Your task to perform on an android device: Add bose soundsport free to the cart on bestbuy, then select checkout. Image 0: 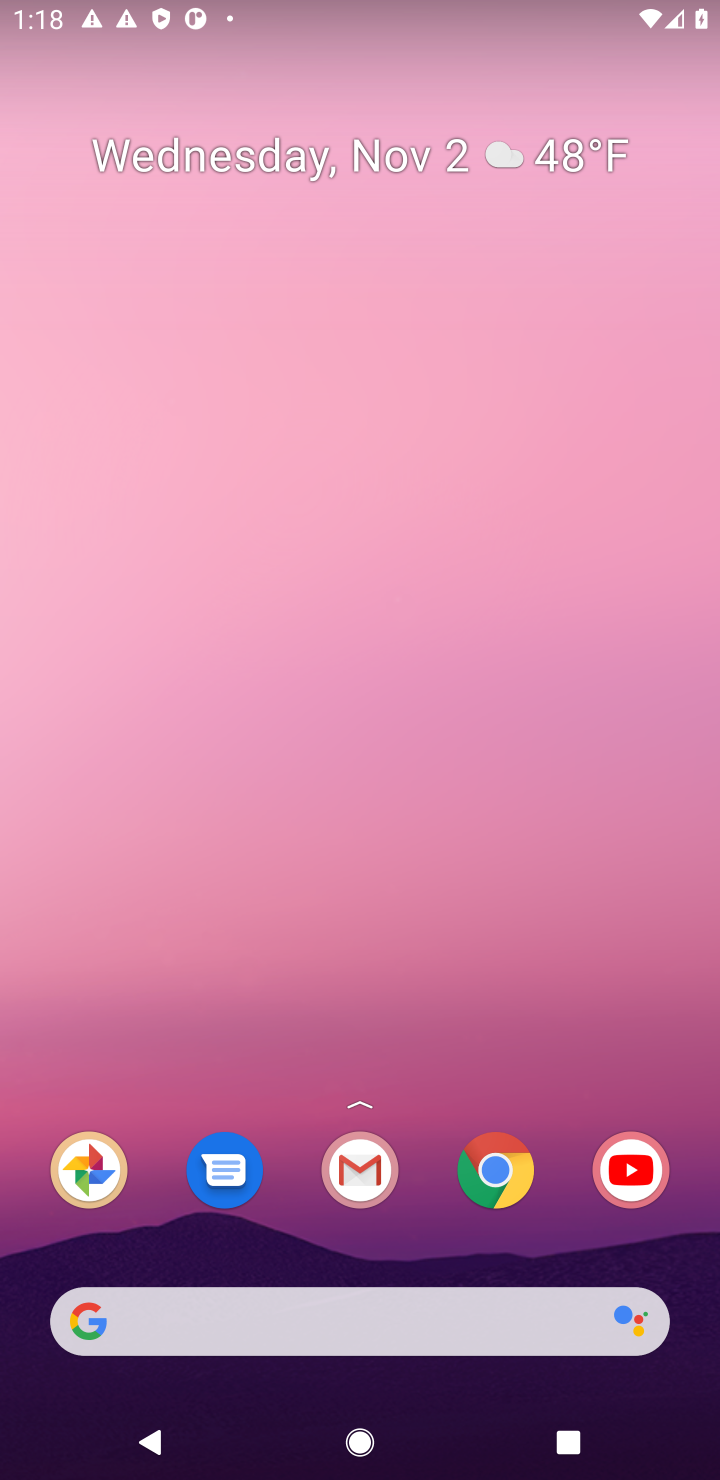
Step 0: drag from (412, 987) to (284, 245)
Your task to perform on an android device: Add bose soundsport free to the cart on bestbuy, then select checkout. Image 1: 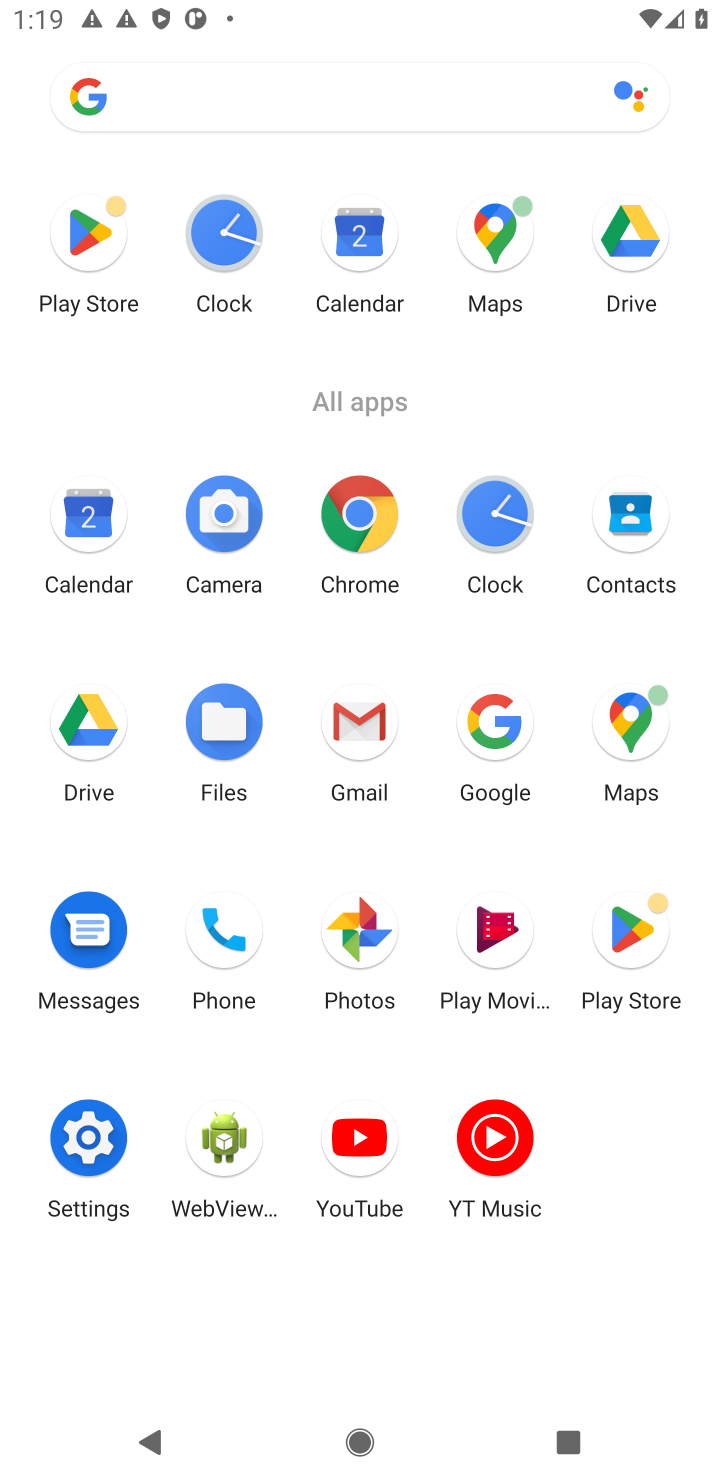
Step 1: drag from (339, 906) to (365, 381)
Your task to perform on an android device: Add bose soundsport free to the cart on bestbuy, then select checkout. Image 2: 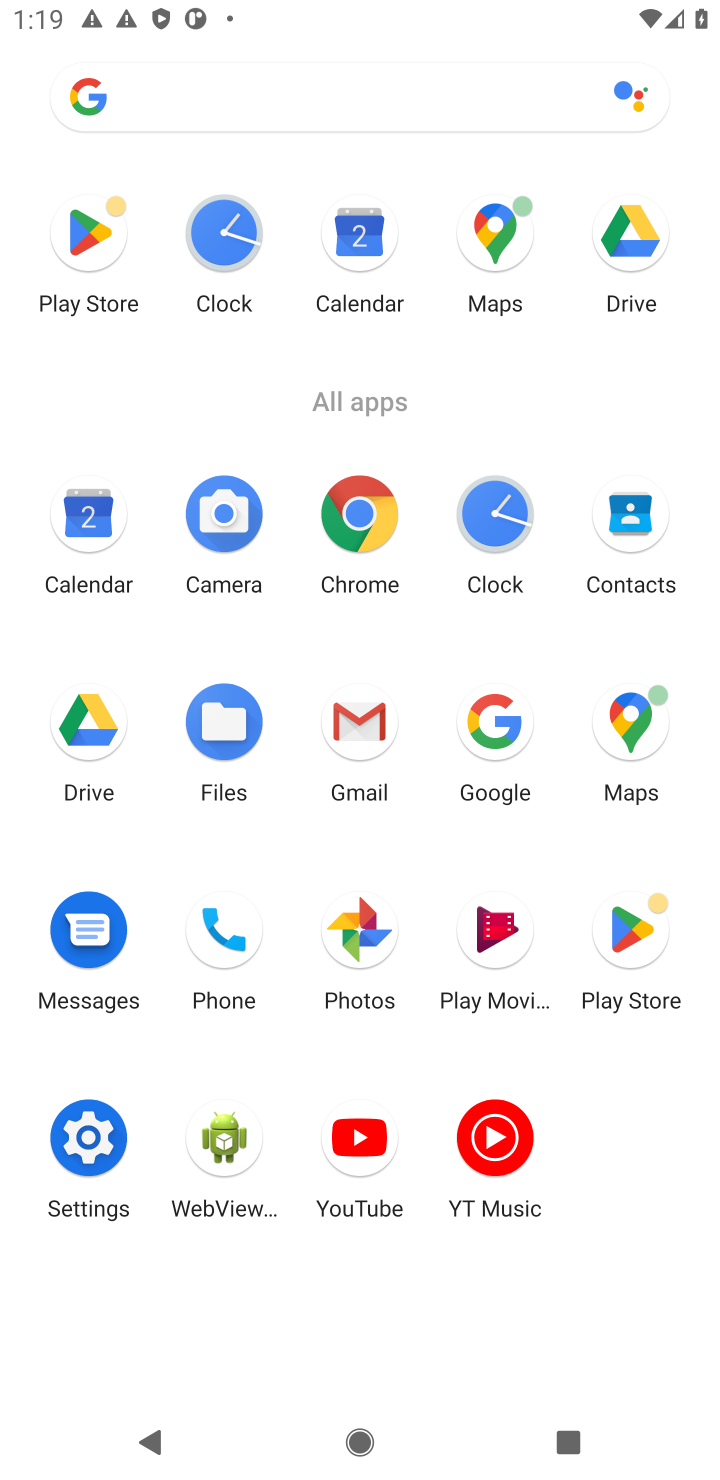
Step 2: click (490, 742)
Your task to perform on an android device: Add bose soundsport free to the cart on bestbuy, then select checkout. Image 3: 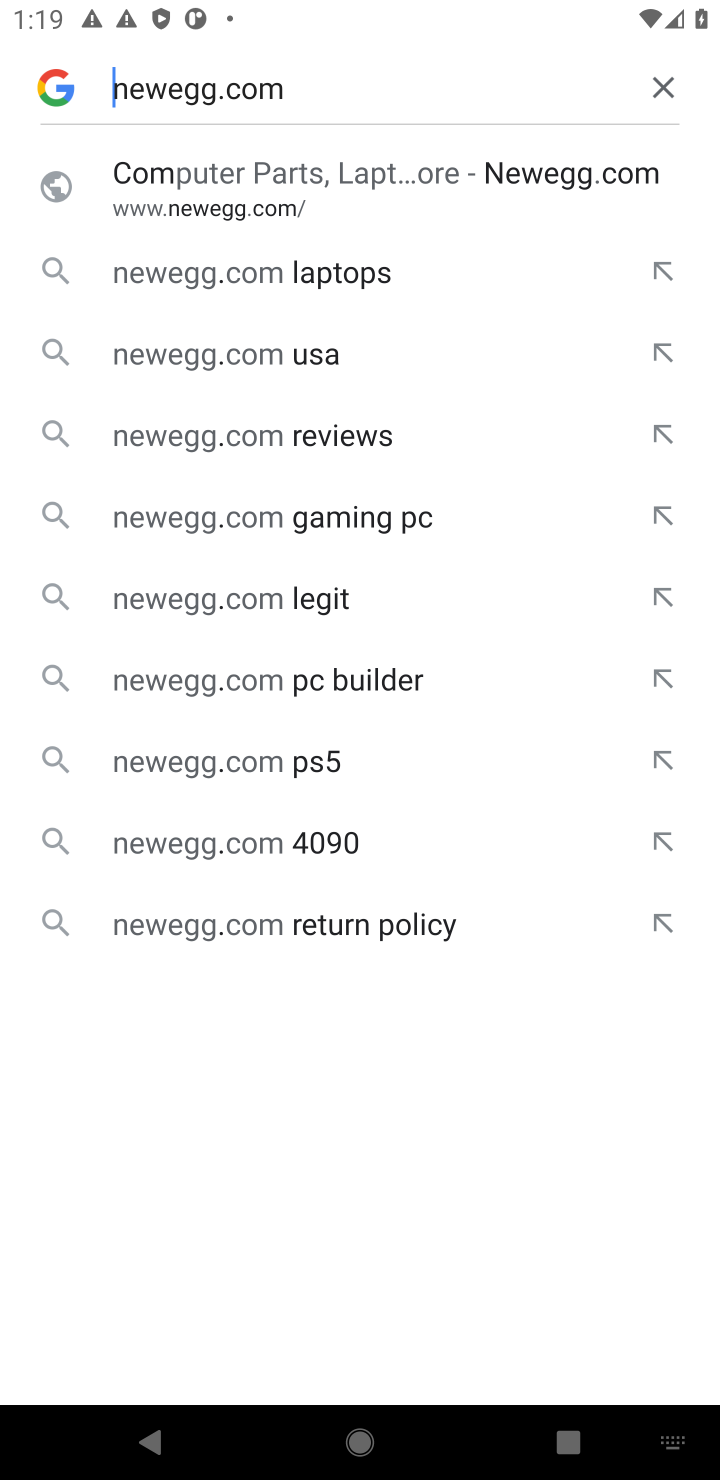
Step 3: click (669, 81)
Your task to perform on an android device: Add bose soundsport free to the cart on bestbuy, then select checkout. Image 4: 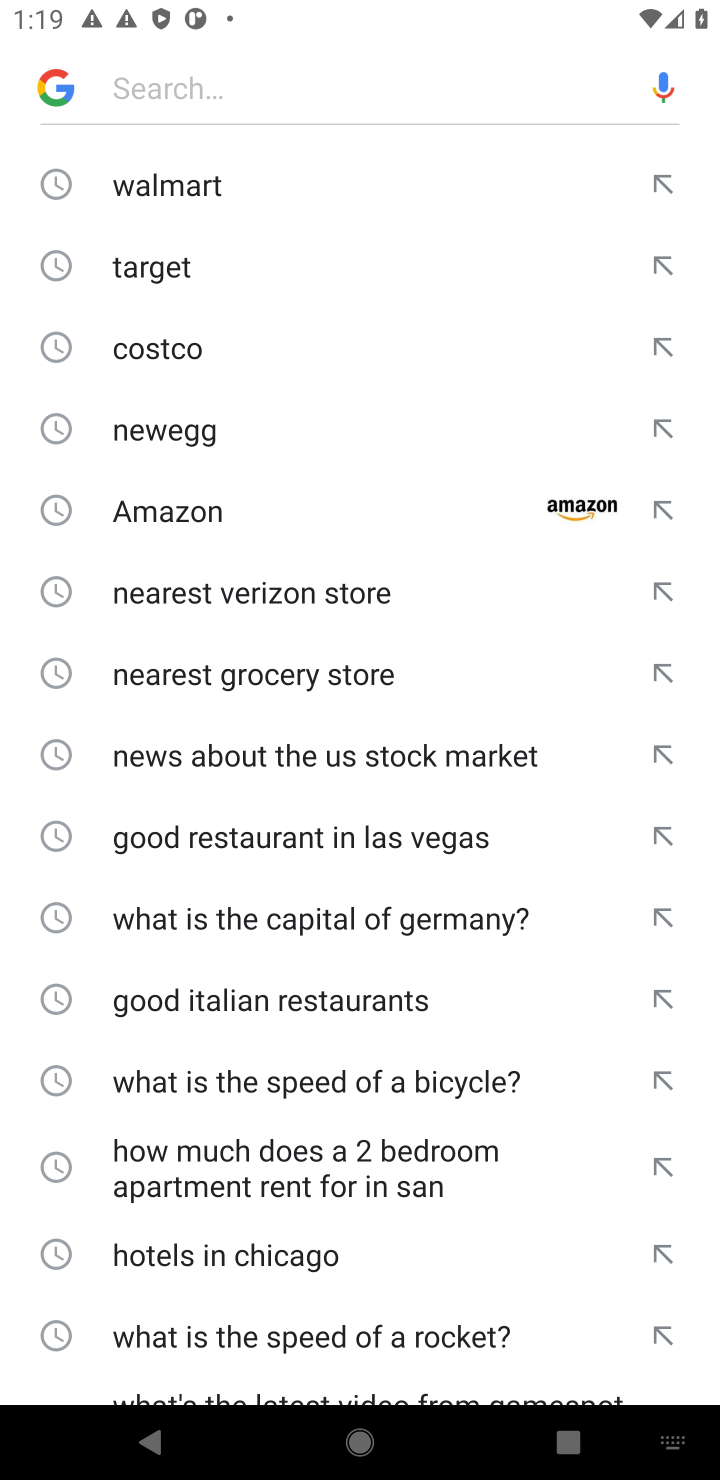
Step 4: type "bestbuy"
Your task to perform on an android device: Add bose soundsport free to the cart on bestbuy, then select checkout. Image 5: 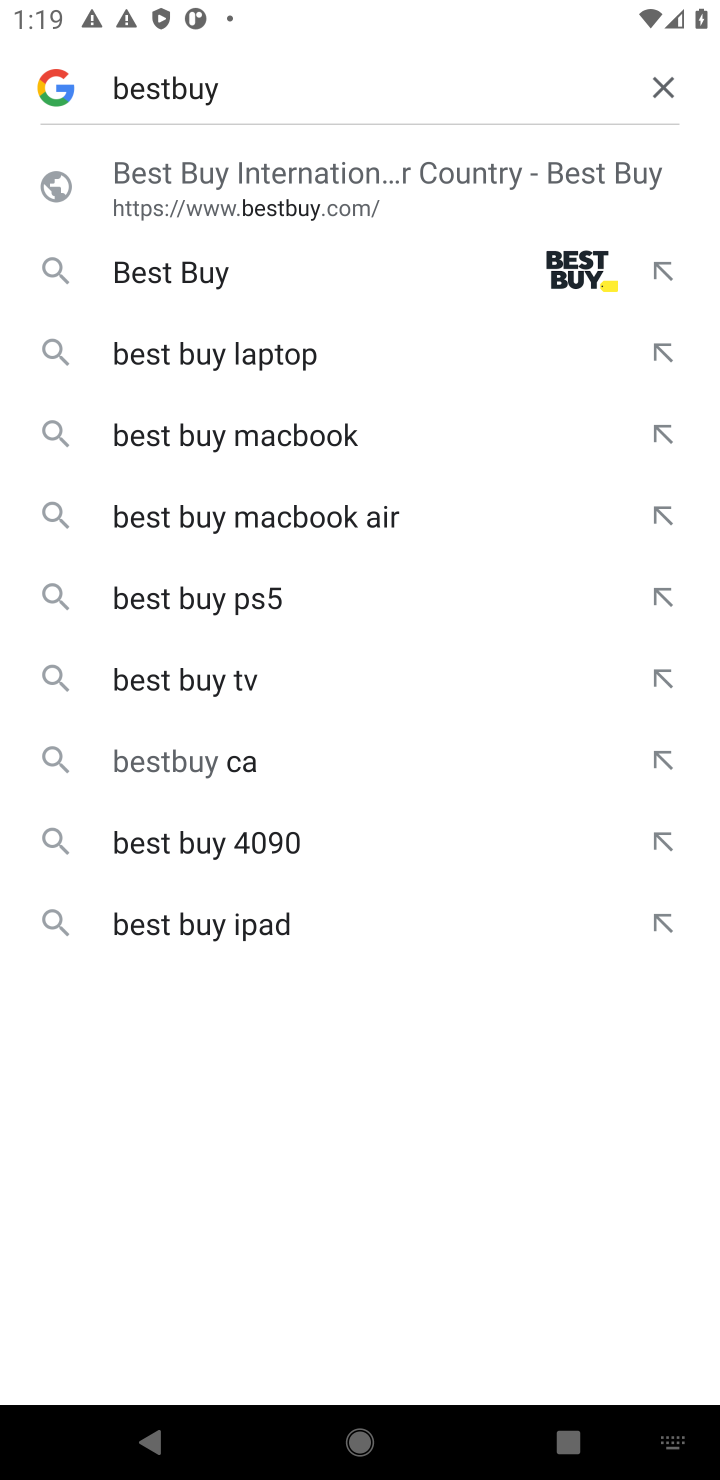
Step 5: click (304, 221)
Your task to perform on an android device: Add bose soundsport free to the cart on bestbuy, then select checkout. Image 6: 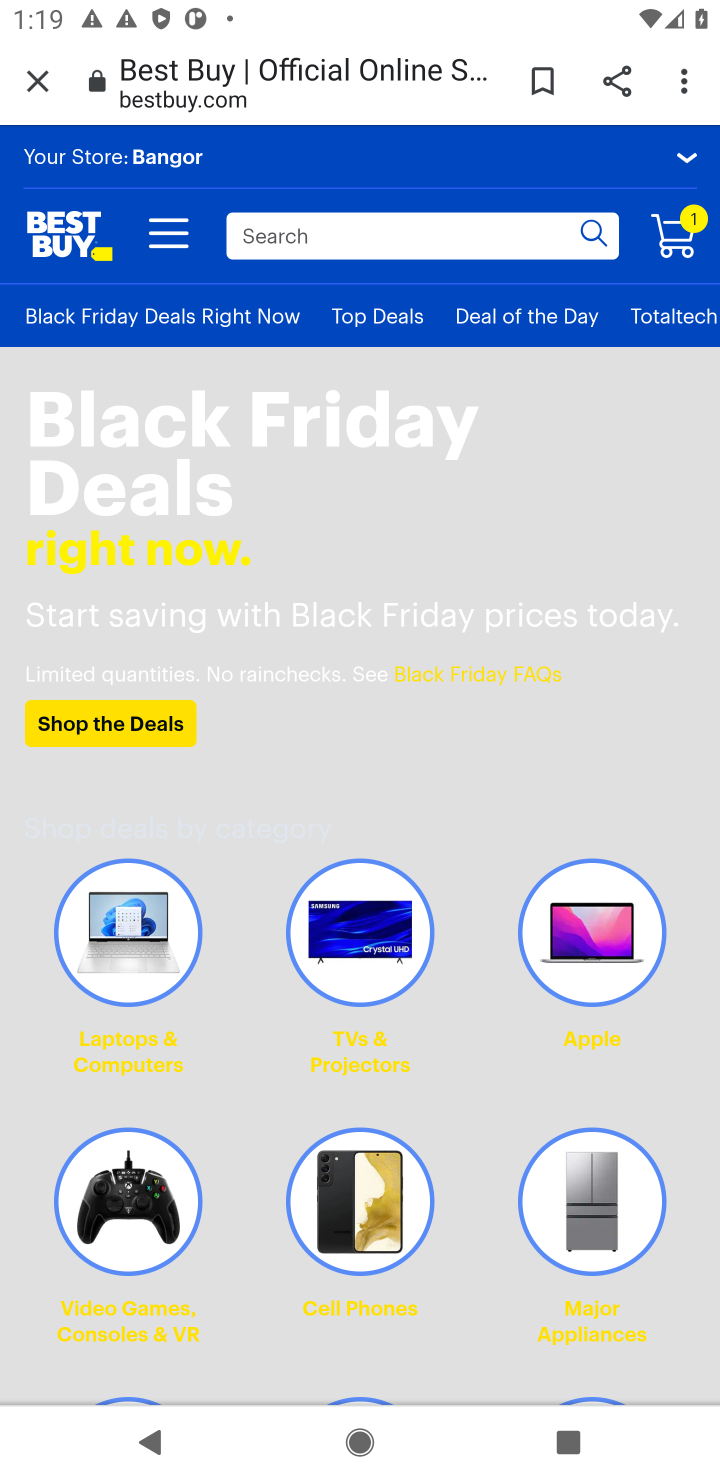
Step 6: click (353, 239)
Your task to perform on an android device: Add bose soundsport free to the cart on bestbuy, then select checkout. Image 7: 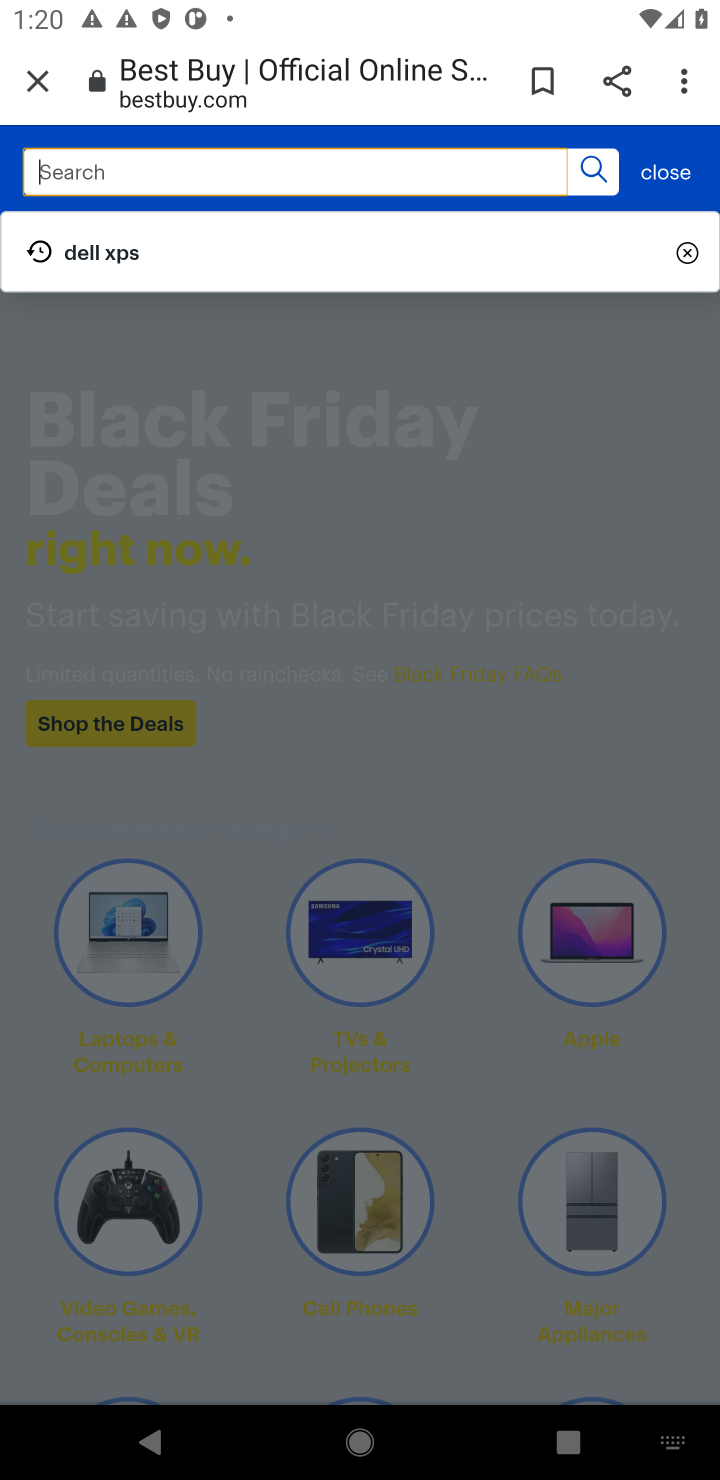
Step 7: type "bose soundsport"
Your task to perform on an android device: Add bose soundsport free to the cart on bestbuy, then select checkout. Image 8: 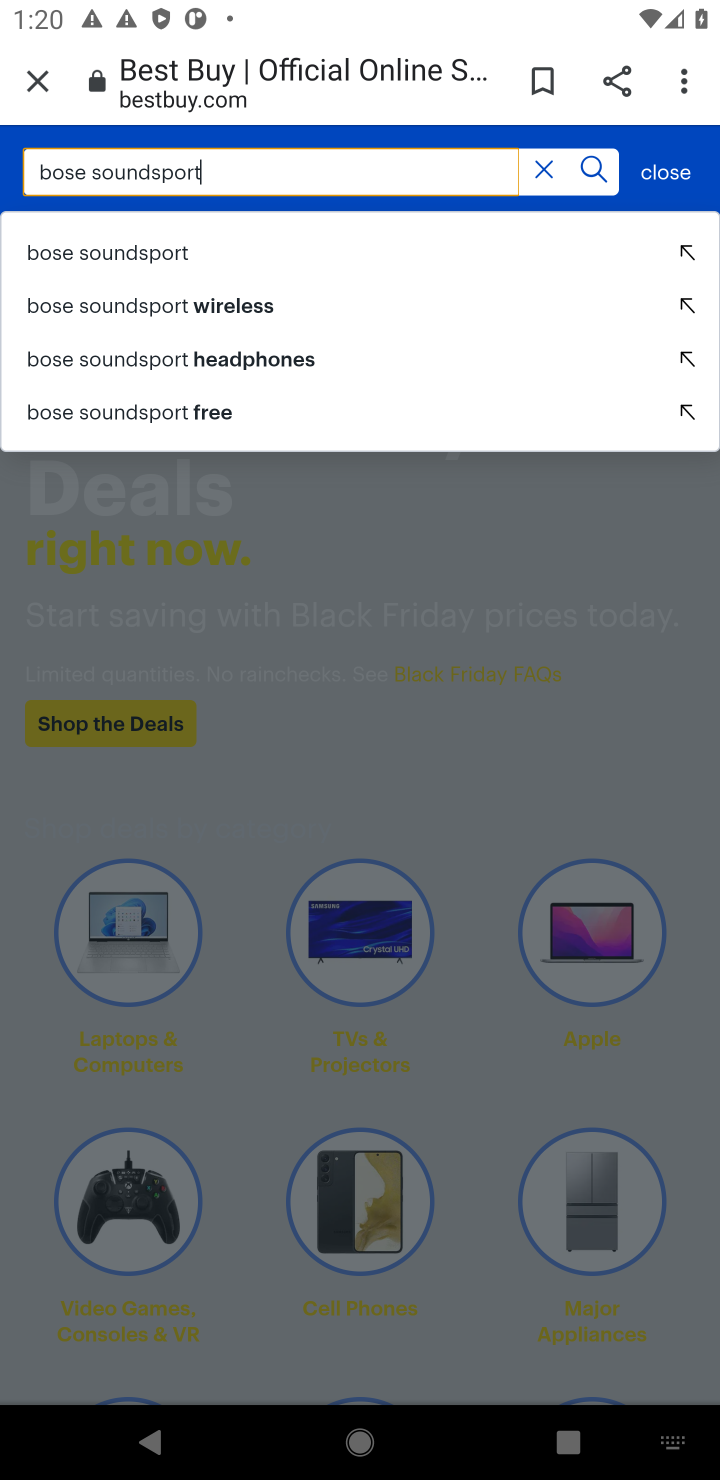
Step 8: click (212, 236)
Your task to perform on an android device: Add bose soundsport free to the cart on bestbuy, then select checkout. Image 9: 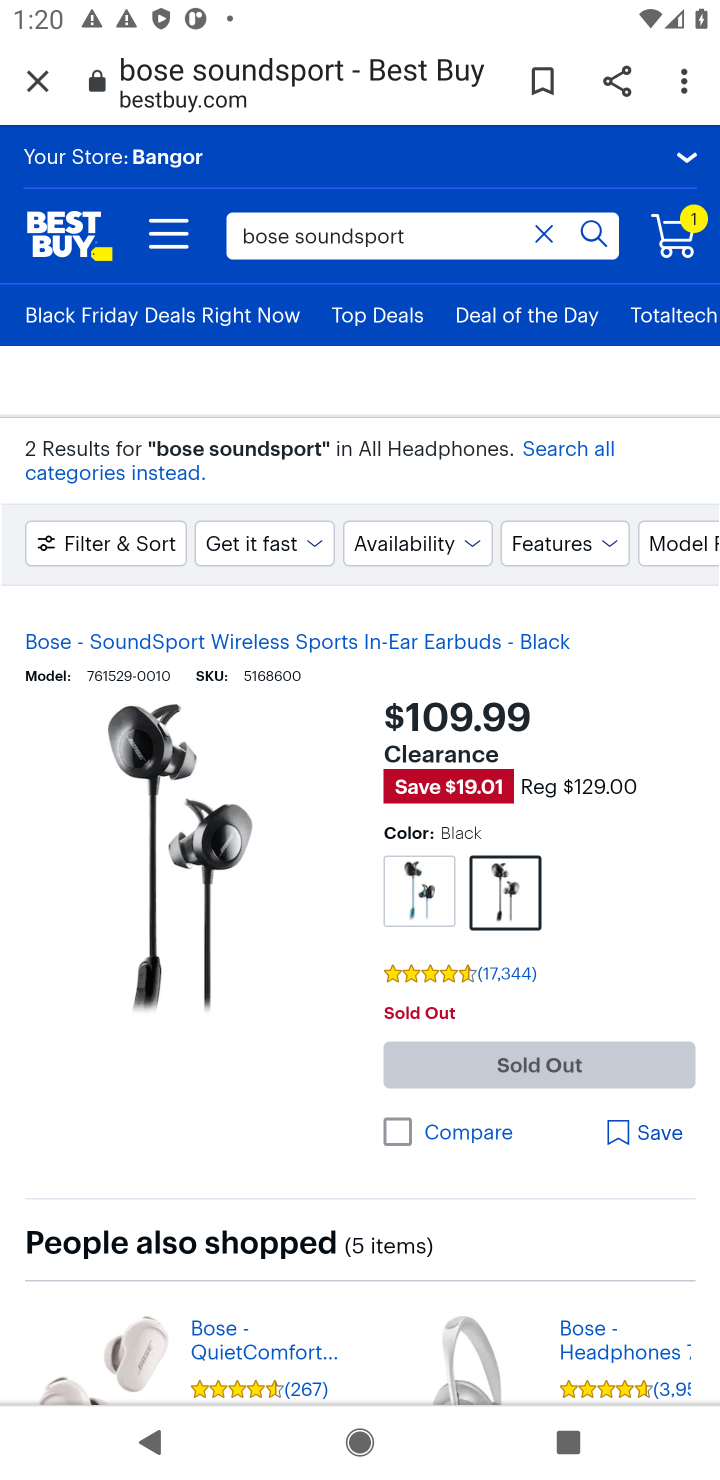
Step 9: drag from (295, 1166) to (325, 903)
Your task to perform on an android device: Add bose soundsport free to the cart on bestbuy, then select checkout. Image 10: 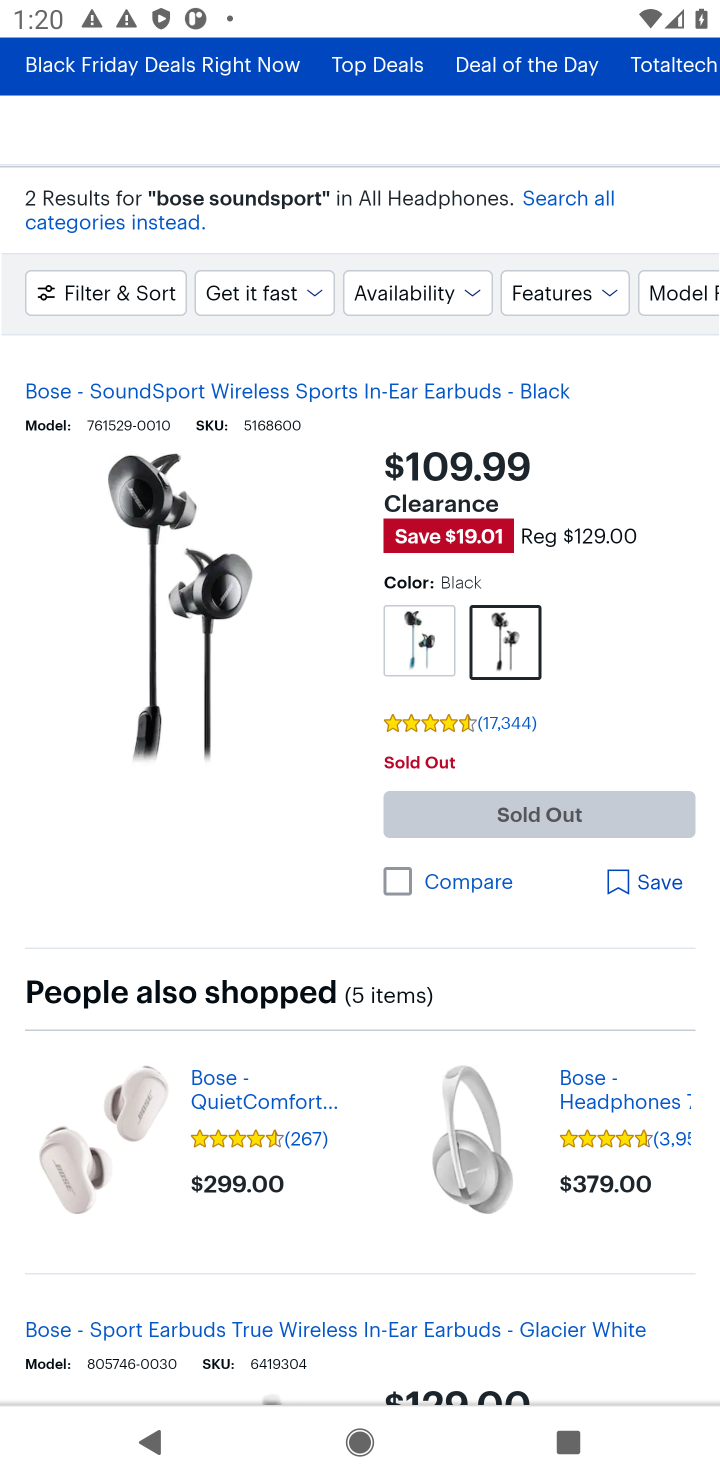
Step 10: drag from (358, 1114) to (376, 520)
Your task to perform on an android device: Add bose soundsport free to the cart on bestbuy, then select checkout. Image 11: 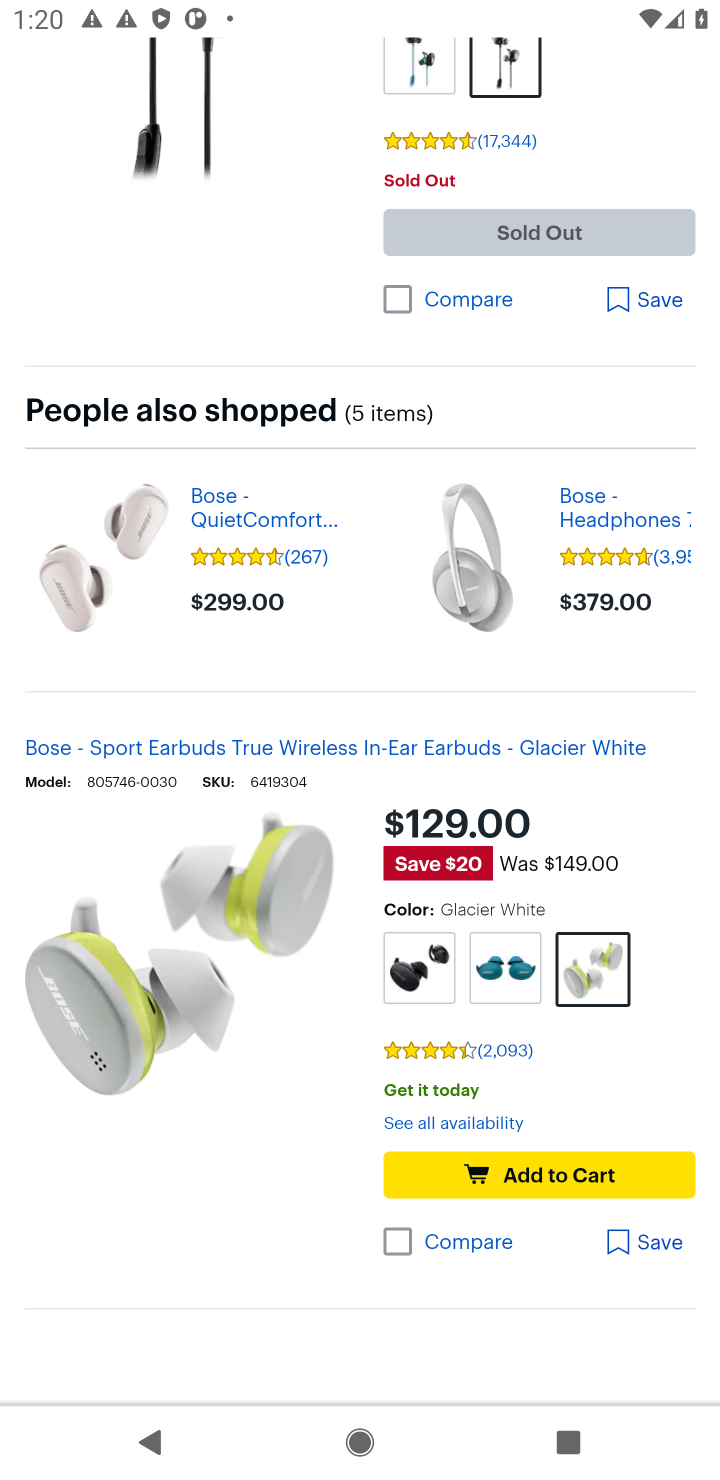
Step 11: drag from (394, 924) to (400, 701)
Your task to perform on an android device: Add bose soundsport free to the cart on bestbuy, then select checkout. Image 12: 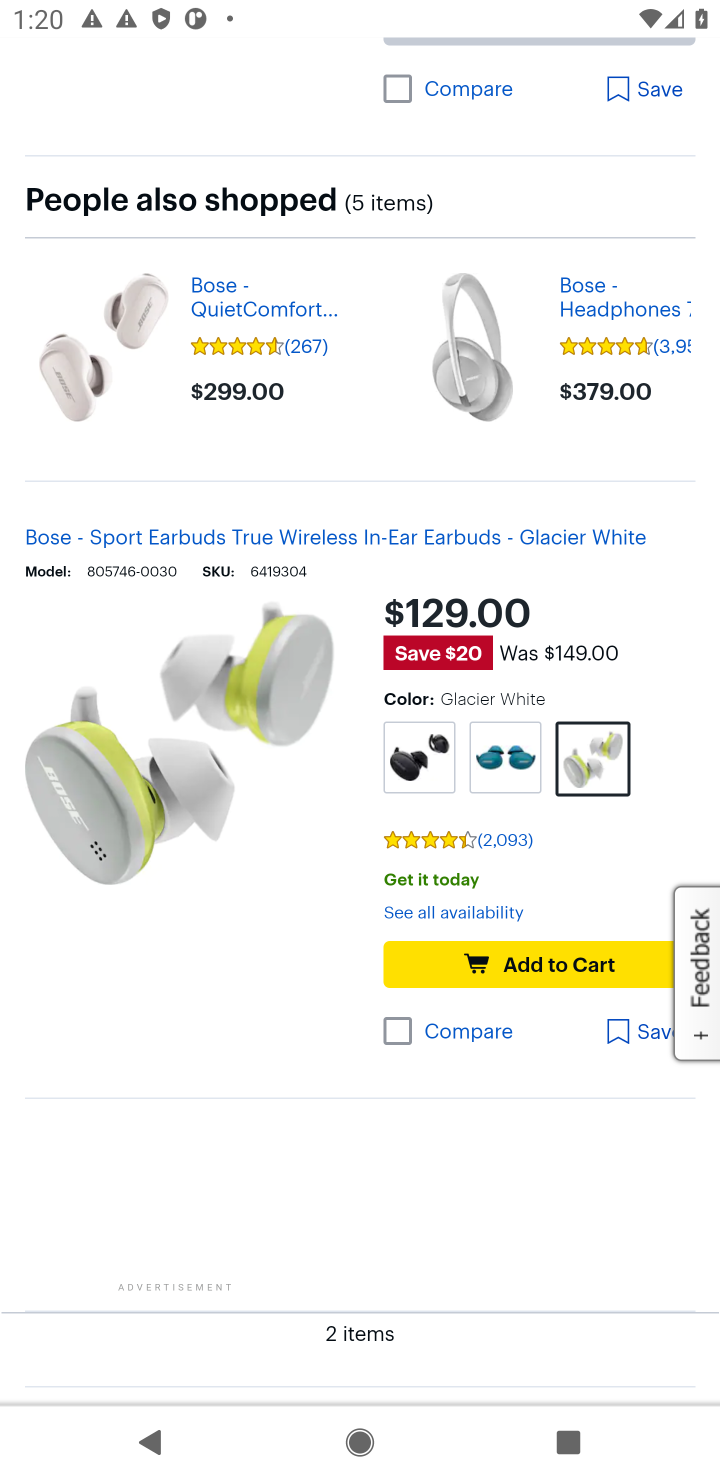
Step 12: click (507, 956)
Your task to perform on an android device: Add bose soundsport free to the cart on bestbuy, then select checkout. Image 13: 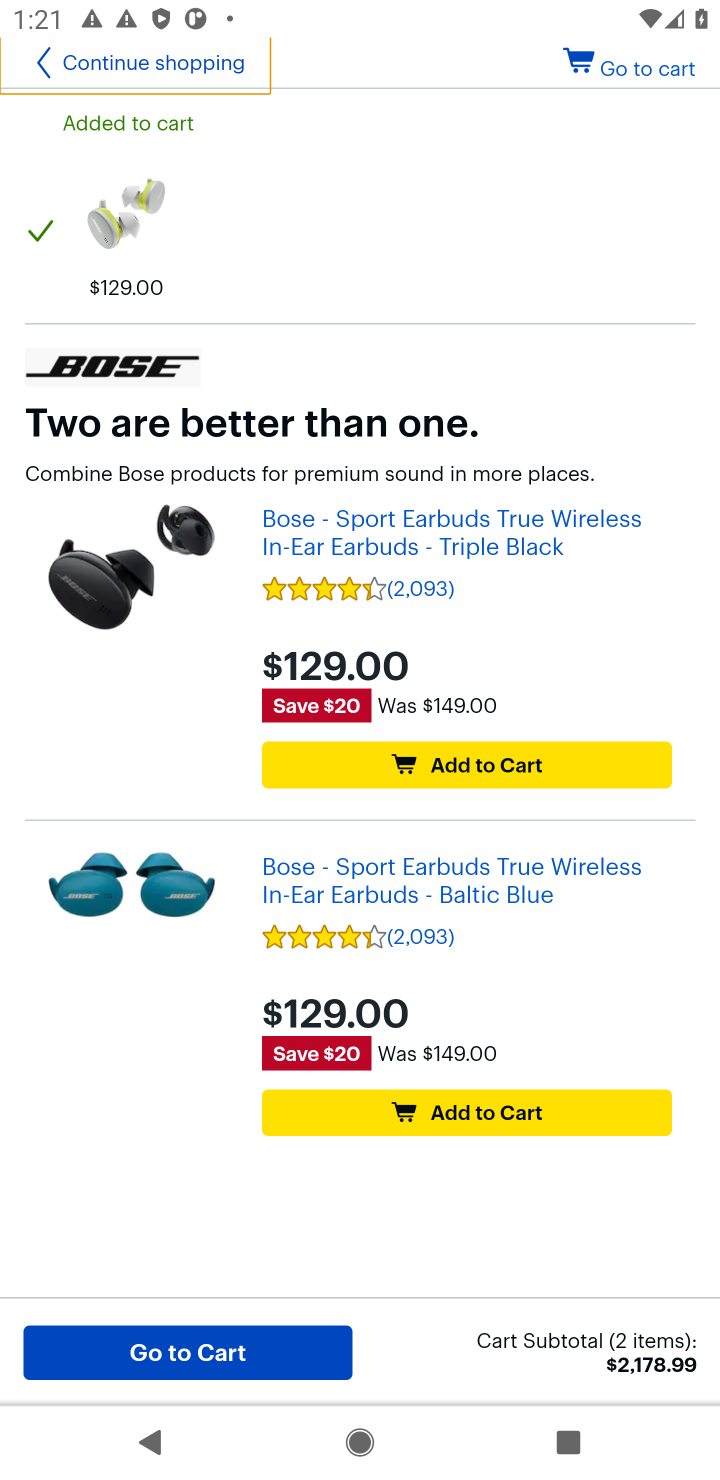
Step 13: click (445, 770)
Your task to perform on an android device: Add bose soundsport free to the cart on bestbuy, then select checkout. Image 14: 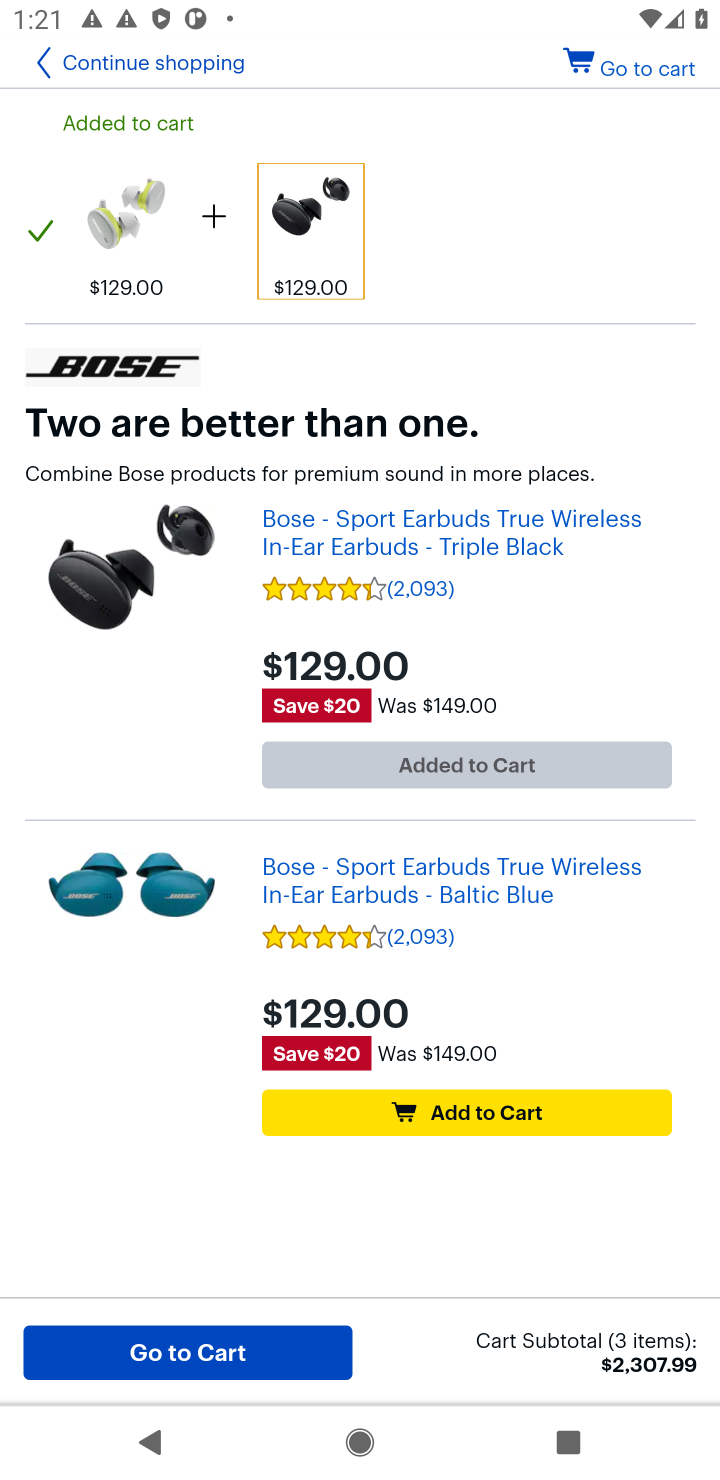
Step 14: click (253, 1339)
Your task to perform on an android device: Add bose soundsport free to the cart on bestbuy, then select checkout. Image 15: 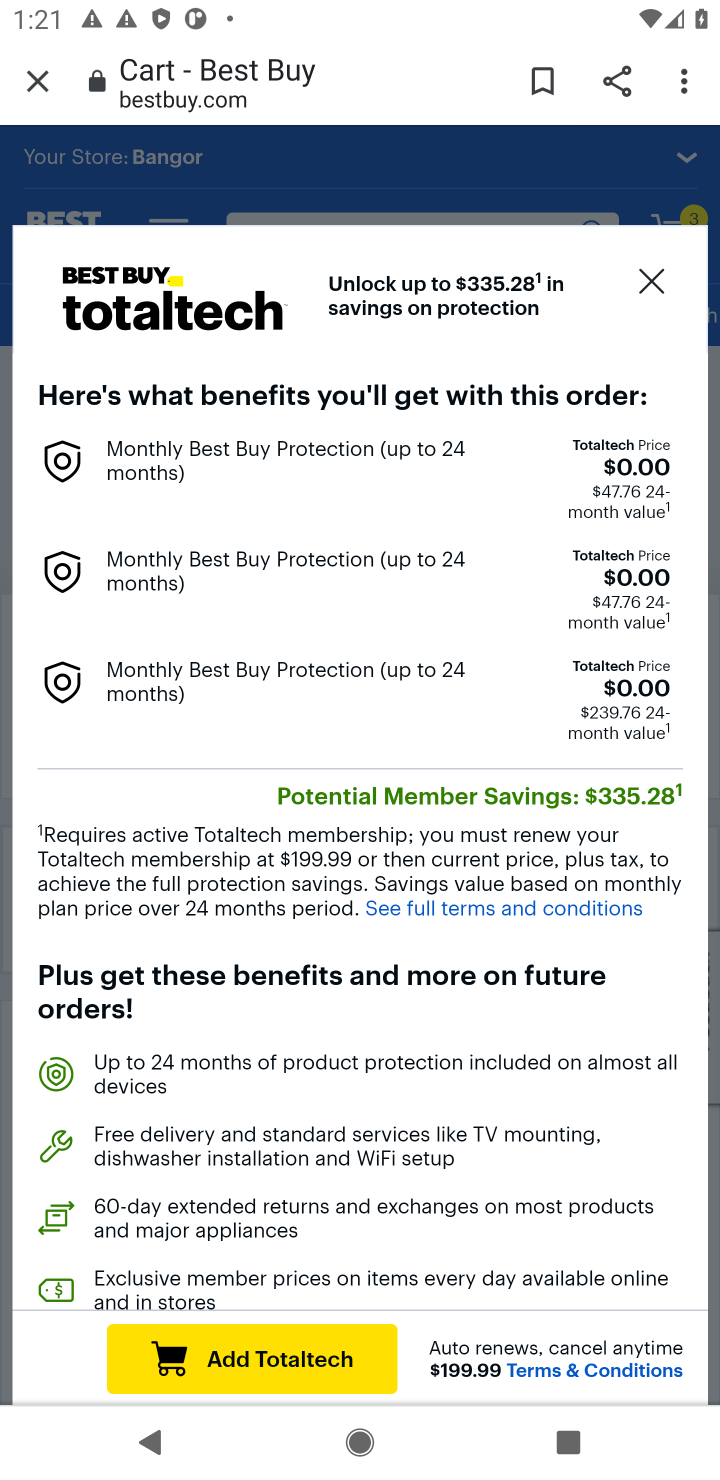
Step 15: click (650, 273)
Your task to perform on an android device: Add bose soundsport free to the cart on bestbuy, then select checkout. Image 16: 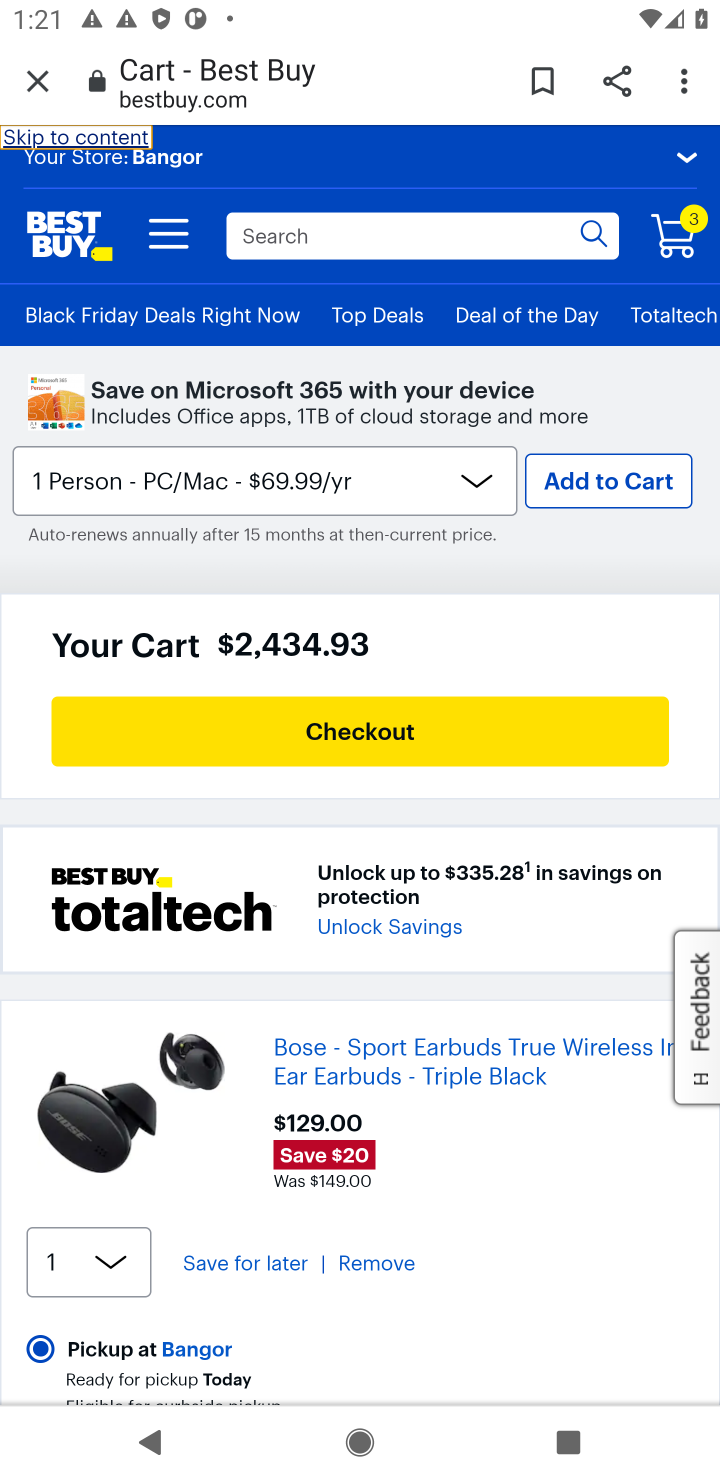
Step 16: click (440, 717)
Your task to perform on an android device: Add bose soundsport free to the cart on bestbuy, then select checkout. Image 17: 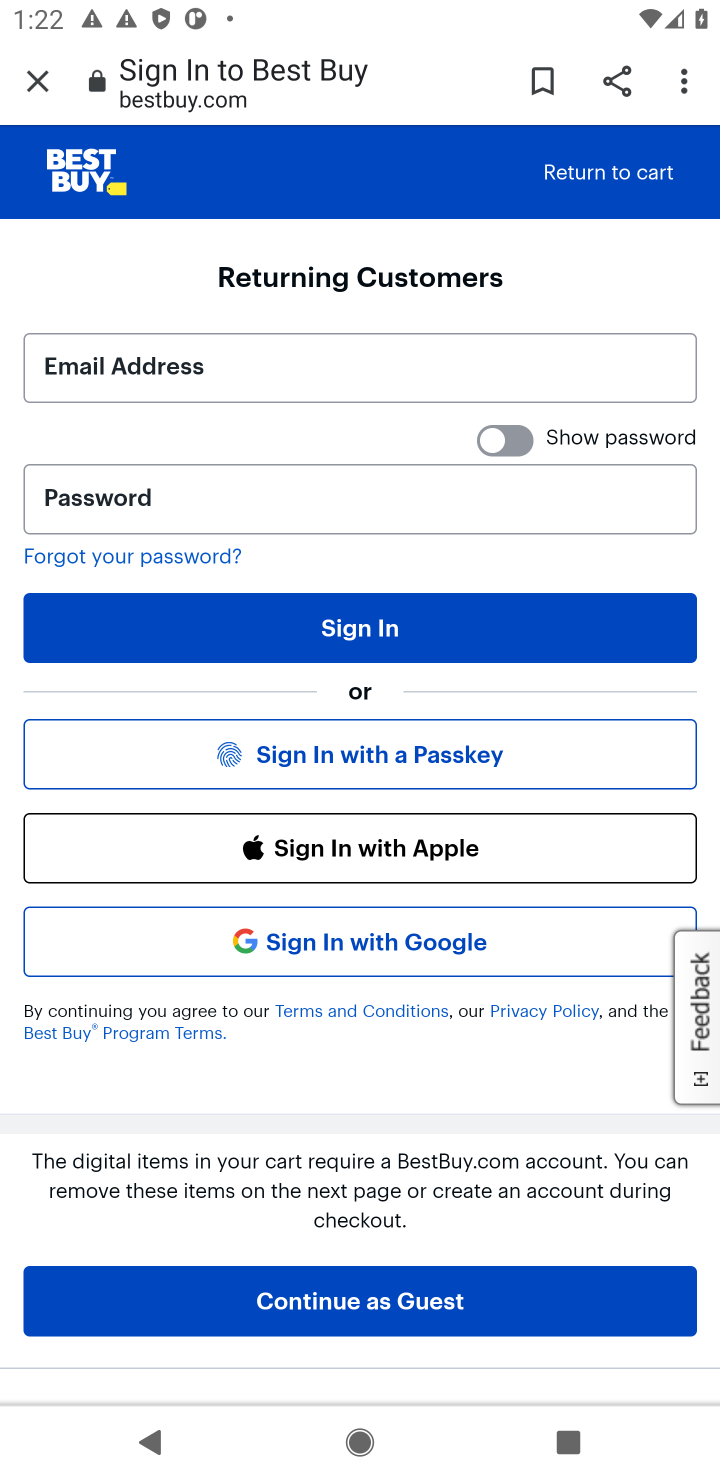
Step 17: task complete